Your task to perform on an android device: Open the stopwatch Image 0: 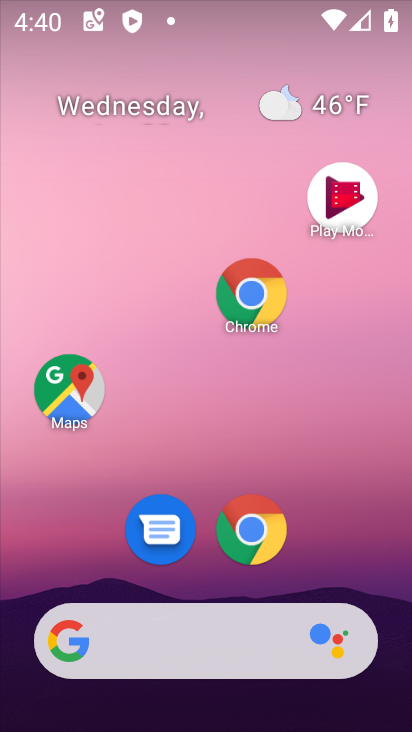
Step 0: drag from (341, 554) to (344, 105)
Your task to perform on an android device: Open the stopwatch Image 1: 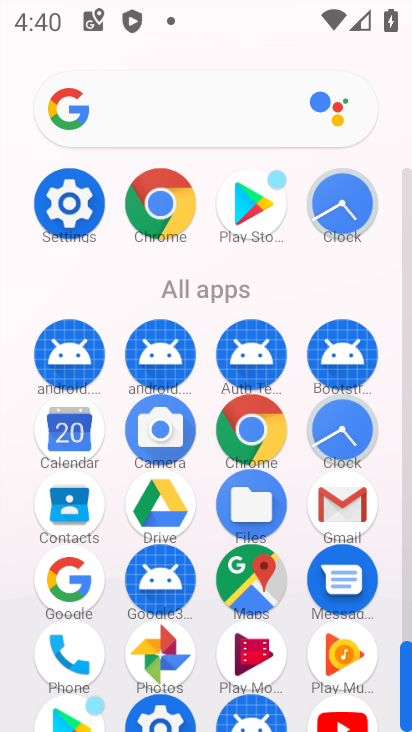
Step 1: drag from (305, 669) to (346, 235)
Your task to perform on an android device: Open the stopwatch Image 2: 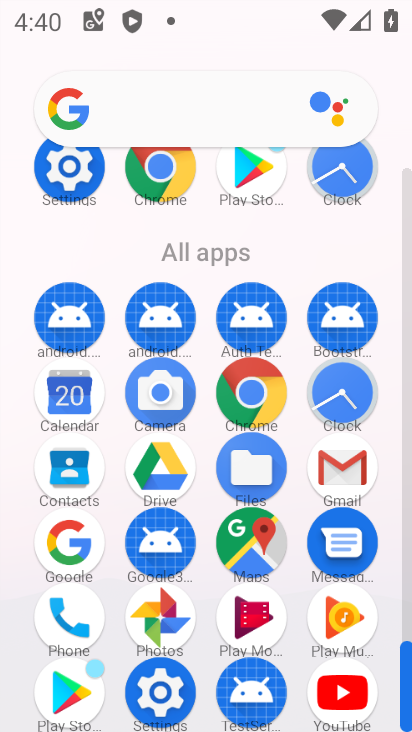
Step 2: drag from (291, 701) to (306, 586)
Your task to perform on an android device: Open the stopwatch Image 3: 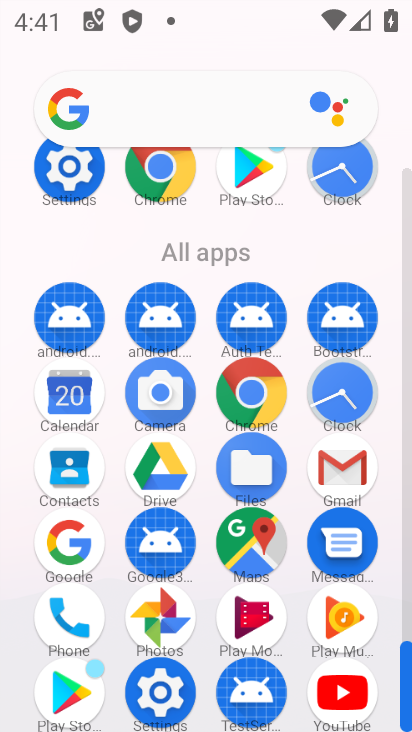
Step 3: click (329, 411)
Your task to perform on an android device: Open the stopwatch Image 4: 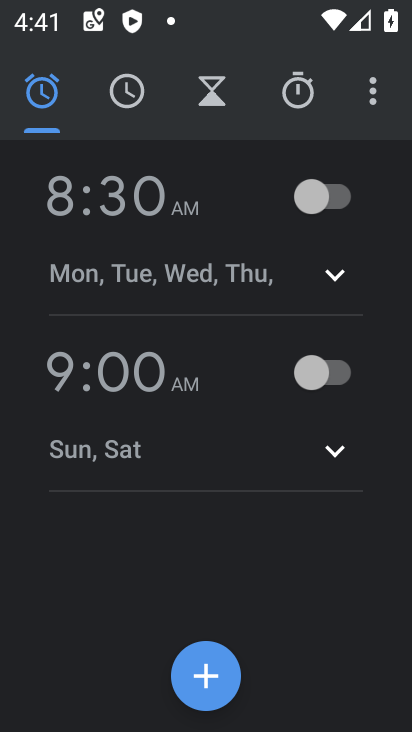
Step 4: click (299, 107)
Your task to perform on an android device: Open the stopwatch Image 5: 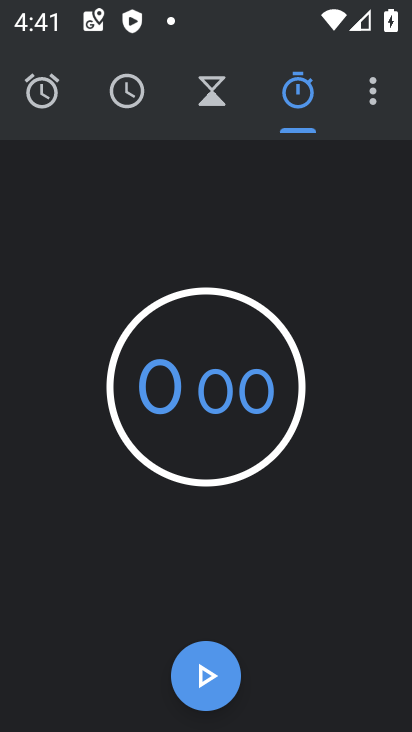
Step 5: task complete